Your task to perform on an android device: turn on sleep mode Image 0: 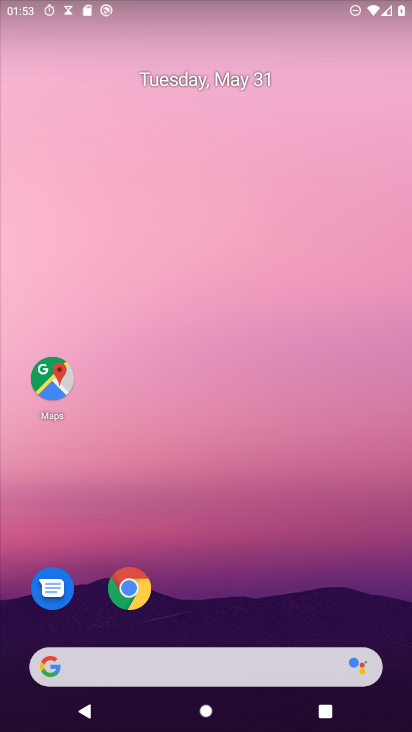
Step 0: drag from (285, 549) to (286, 0)
Your task to perform on an android device: turn on sleep mode Image 1: 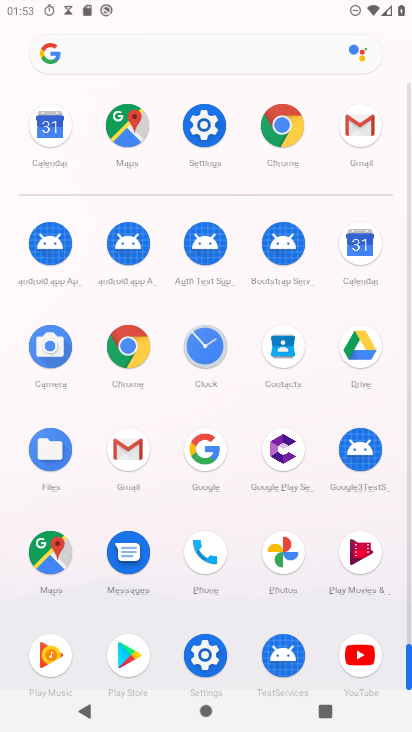
Step 1: click (212, 134)
Your task to perform on an android device: turn on sleep mode Image 2: 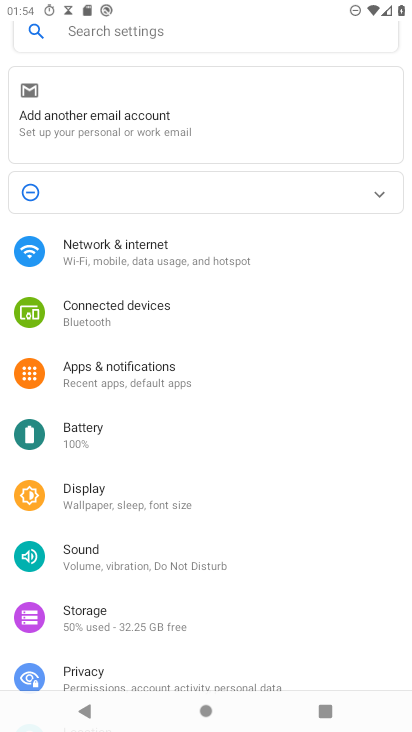
Step 2: click (108, 493)
Your task to perform on an android device: turn on sleep mode Image 3: 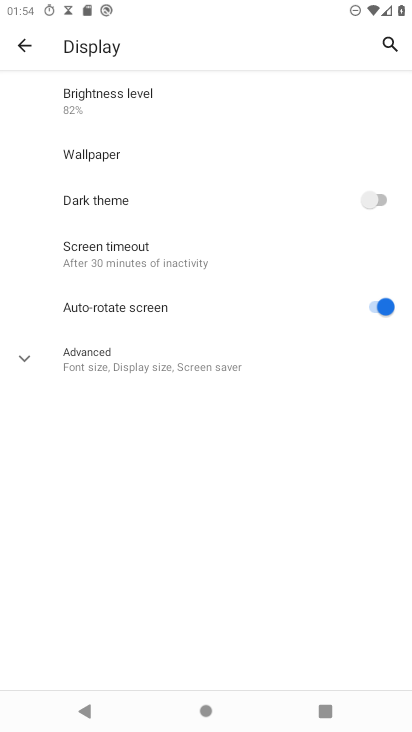
Step 3: task complete